Your task to perform on an android device: Show me the alarms in the clock app Image 0: 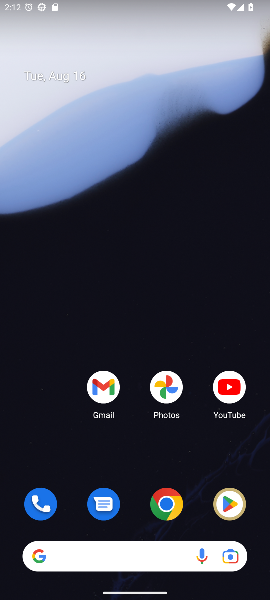
Step 0: drag from (135, 497) to (141, 75)
Your task to perform on an android device: Show me the alarms in the clock app Image 1: 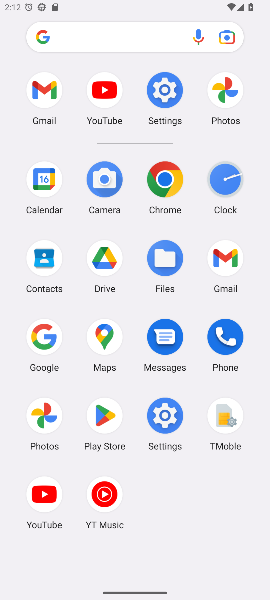
Step 1: click (225, 178)
Your task to perform on an android device: Show me the alarms in the clock app Image 2: 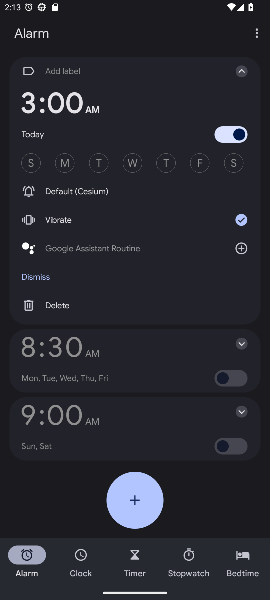
Step 2: click (212, 495)
Your task to perform on an android device: Show me the alarms in the clock app Image 3: 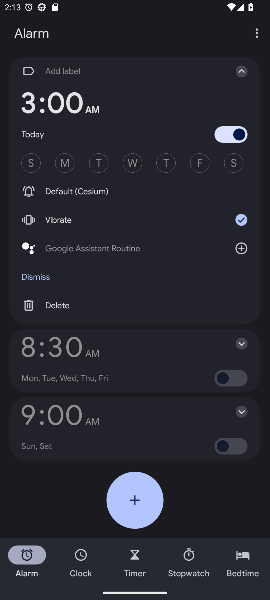
Step 3: task complete